Your task to perform on an android device: turn on translation in the chrome app Image 0: 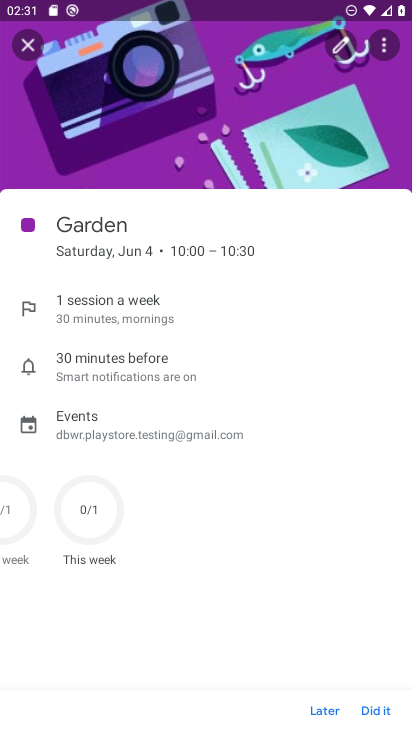
Step 0: press home button
Your task to perform on an android device: turn on translation in the chrome app Image 1: 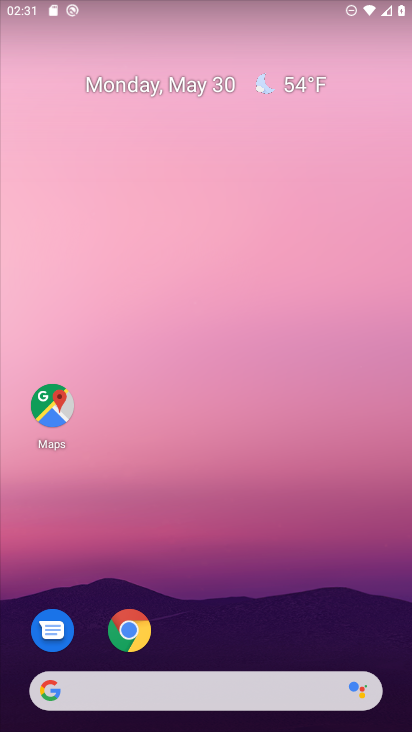
Step 1: click (132, 641)
Your task to perform on an android device: turn on translation in the chrome app Image 2: 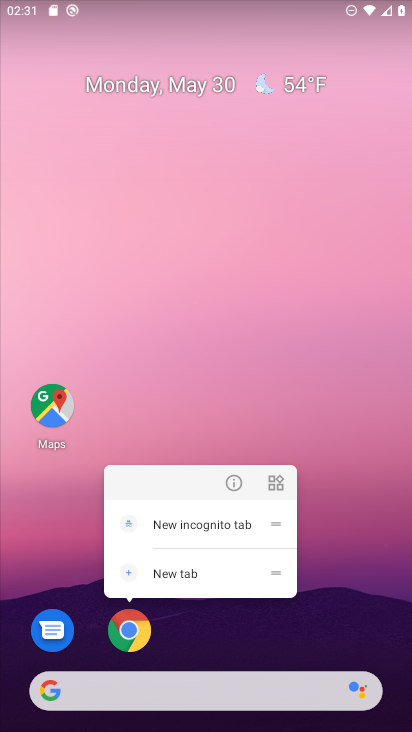
Step 2: click (140, 635)
Your task to perform on an android device: turn on translation in the chrome app Image 3: 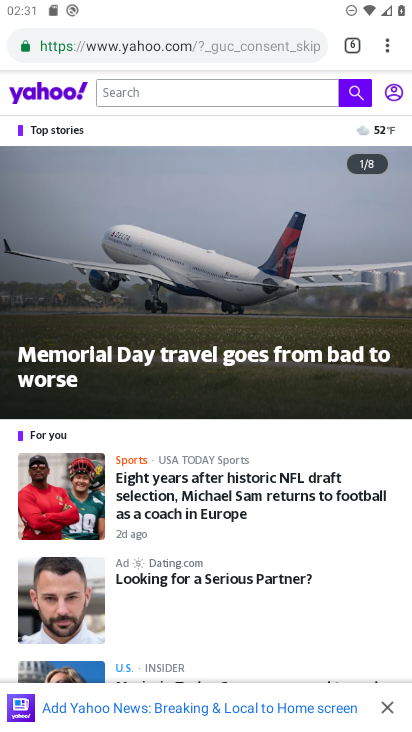
Step 3: drag from (389, 47) to (241, 553)
Your task to perform on an android device: turn on translation in the chrome app Image 4: 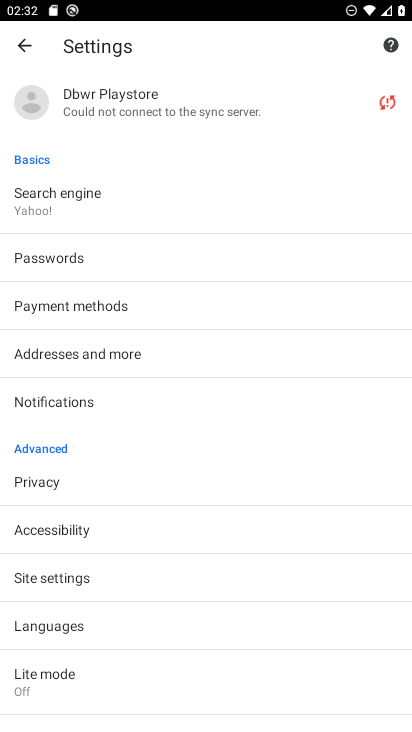
Step 4: click (81, 626)
Your task to perform on an android device: turn on translation in the chrome app Image 5: 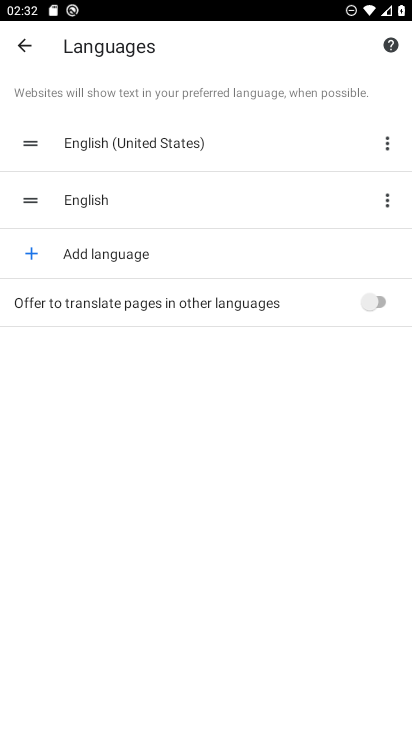
Step 5: click (377, 299)
Your task to perform on an android device: turn on translation in the chrome app Image 6: 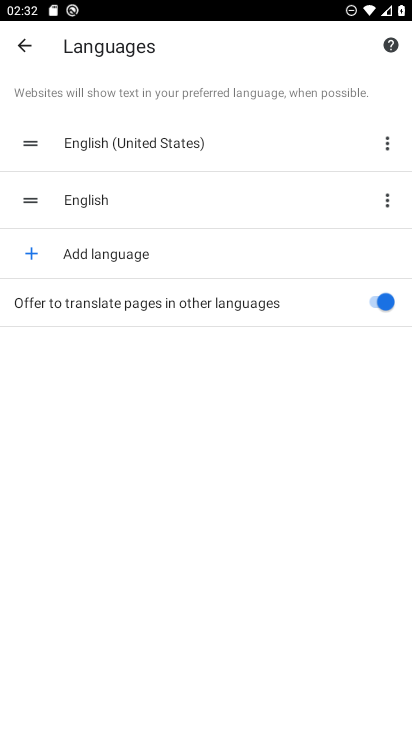
Step 6: task complete